Your task to perform on an android device: turn off notifications settings in the gmail app Image 0: 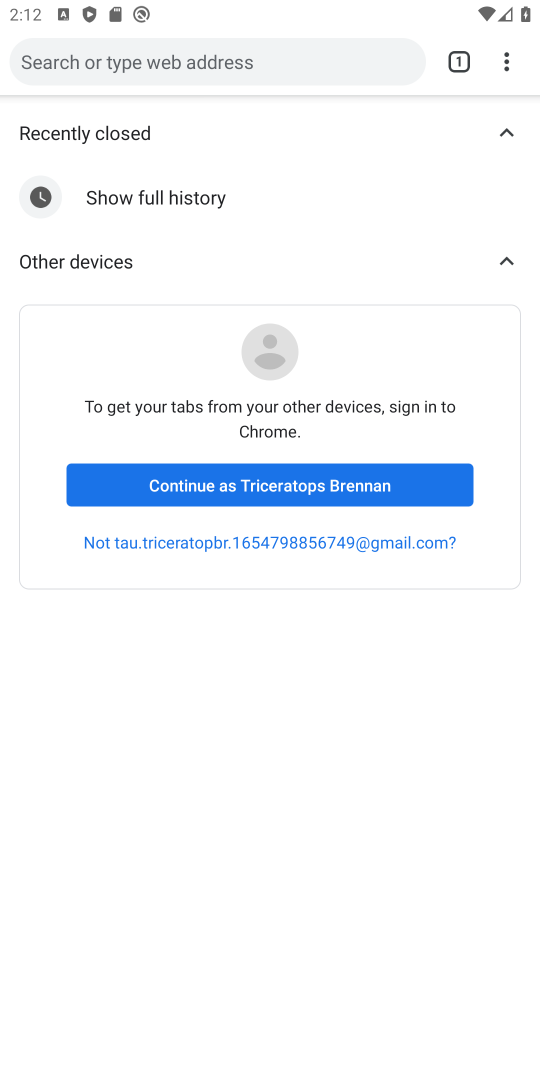
Step 0: press home button
Your task to perform on an android device: turn off notifications settings in the gmail app Image 1: 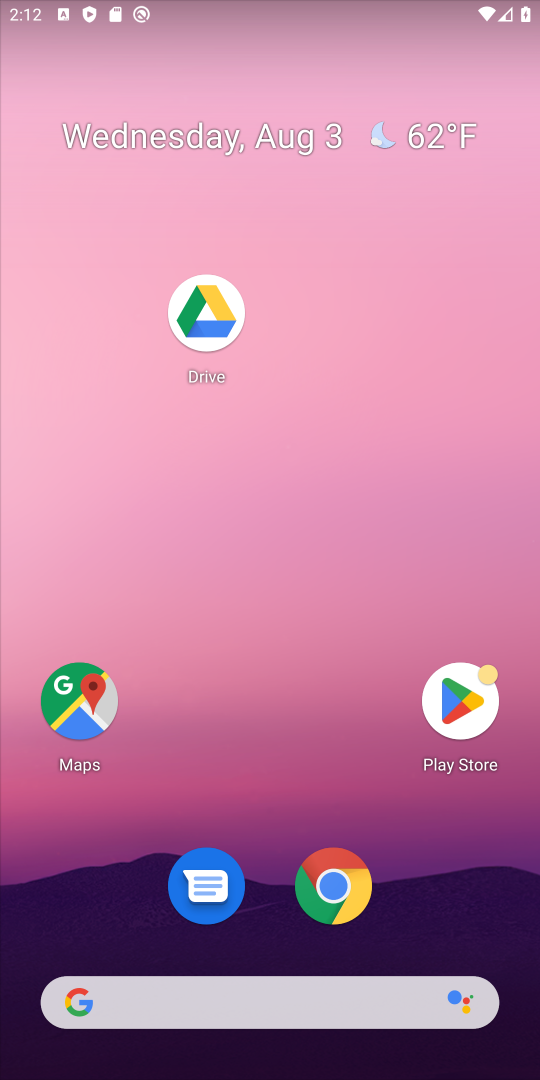
Step 1: drag from (226, 968) to (226, 156)
Your task to perform on an android device: turn off notifications settings in the gmail app Image 2: 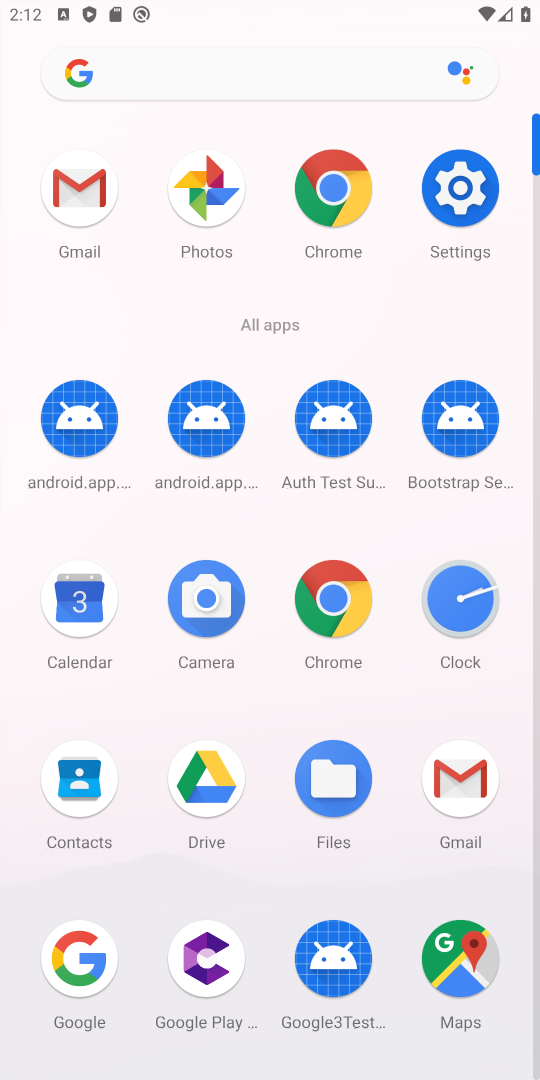
Step 2: click (474, 769)
Your task to perform on an android device: turn off notifications settings in the gmail app Image 3: 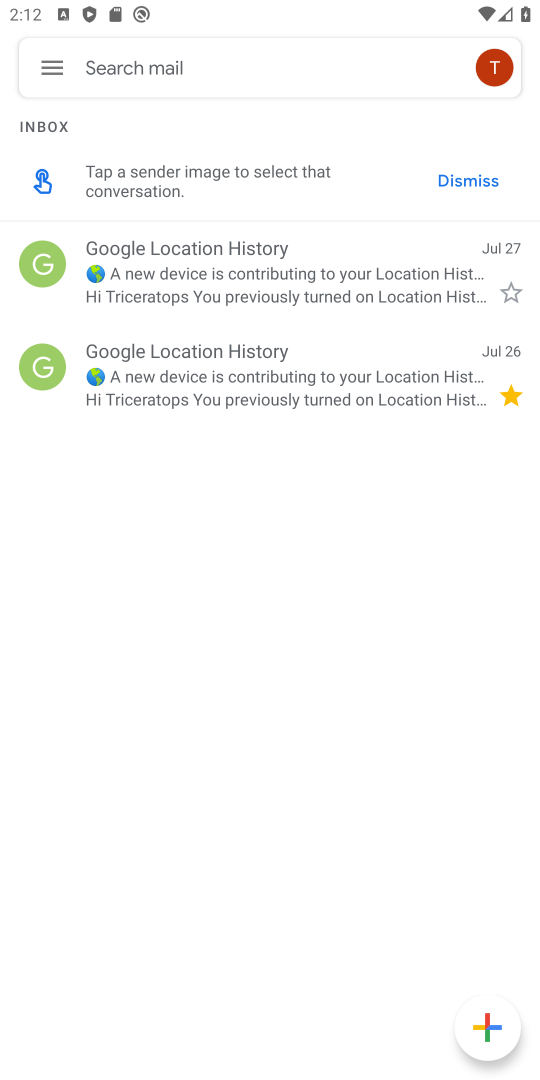
Step 3: click (56, 60)
Your task to perform on an android device: turn off notifications settings in the gmail app Image 4: 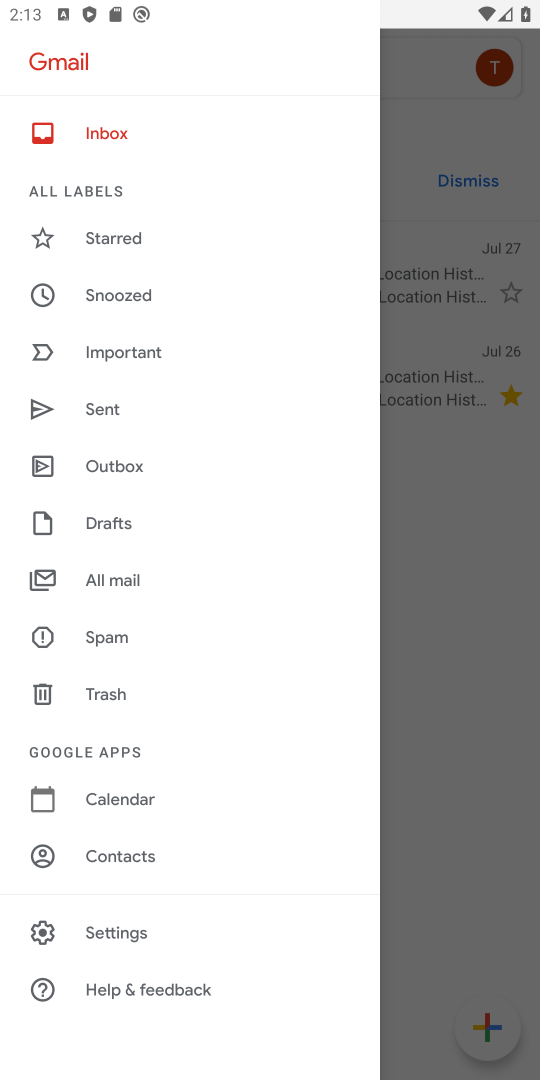
Step 4: click (157, 931)
Your task to perform on an android device: turn off notifications settings in the gmail app Image 5: 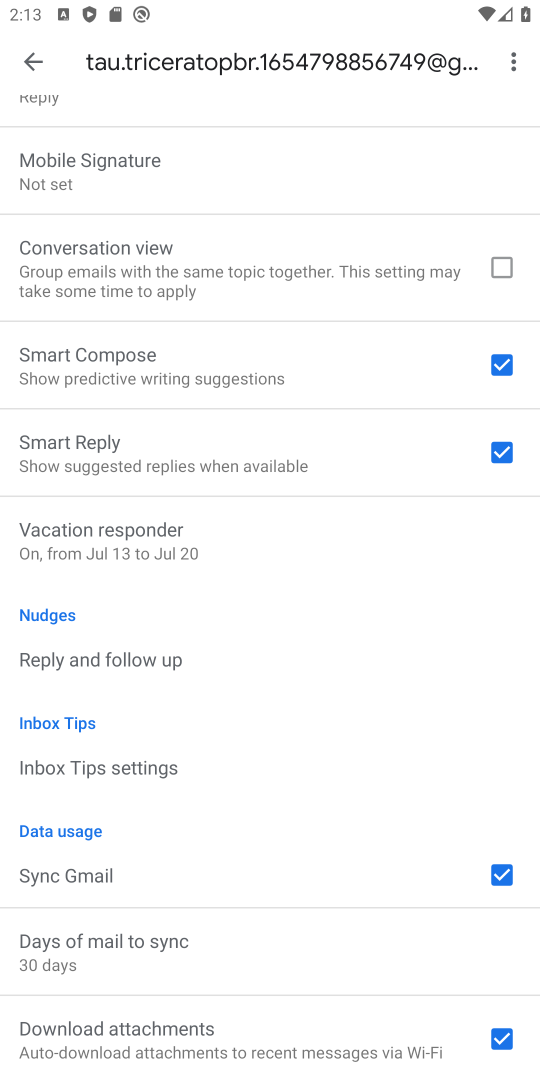
Step 5: drag from (117, 351) to (204, 1068)
Your task to perform on an android device: turn off notifications settings in the gmail app Image 6: 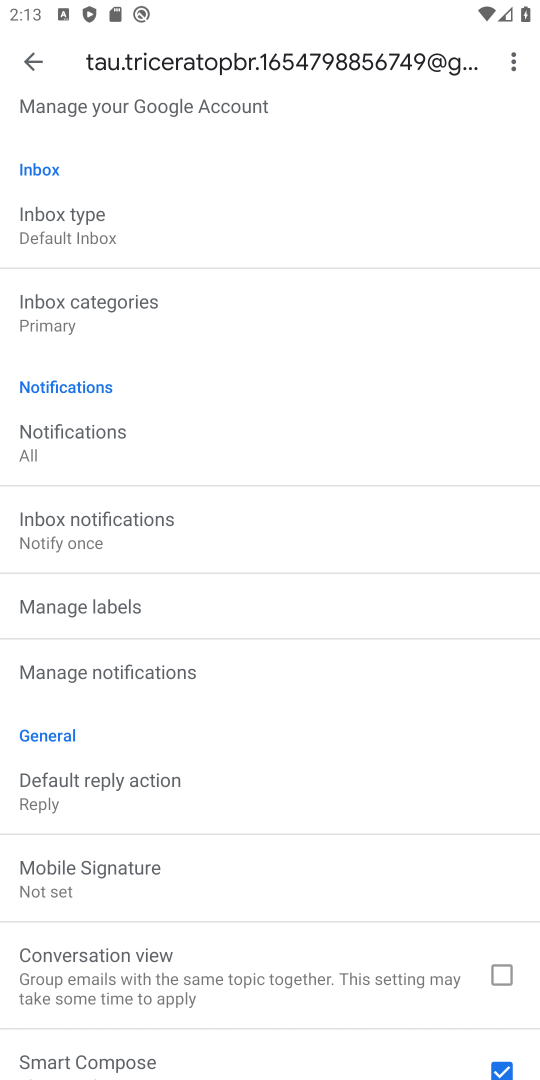
Step 6: click (143, 673)
Your task to perform on an android device: turn off notifications settings in the gmail app Image 7: 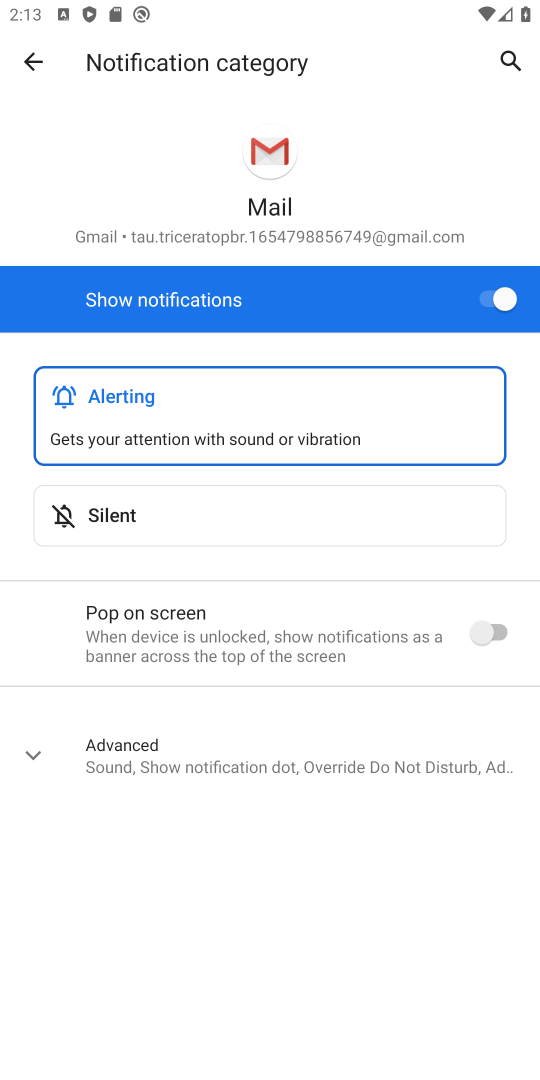
Step 7: click (500, 296)
Your task to perform on an android device: turn off notifications settings in the gmail app Image 8: 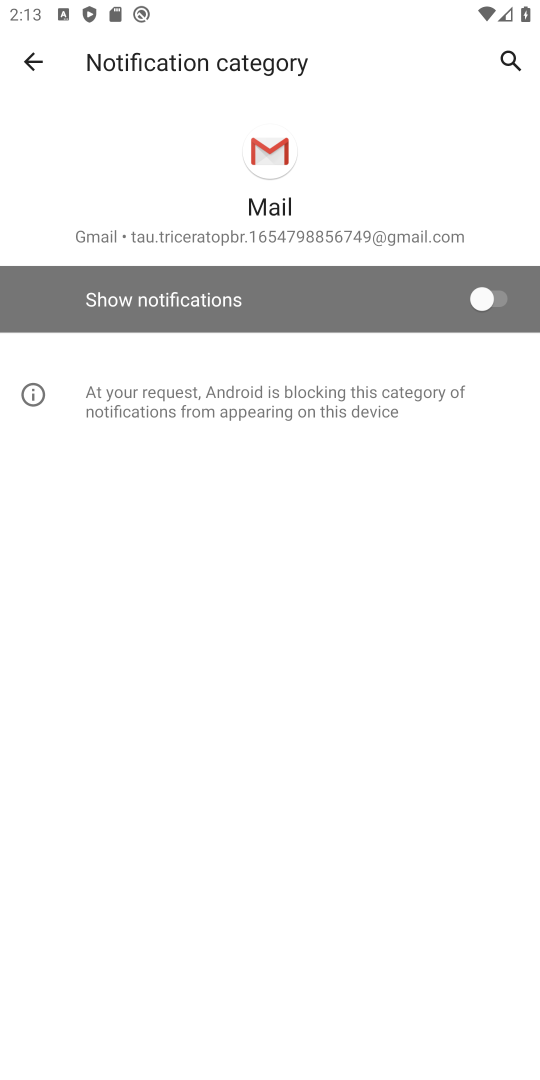
Step 8: task complete